Your task to perform on an android device: Go to sound settings Image 0: 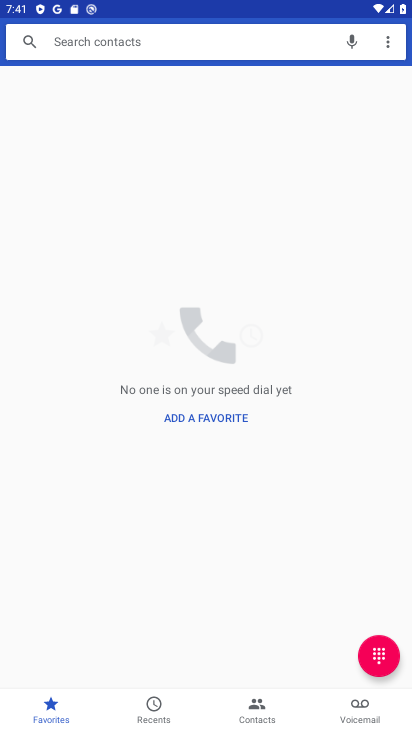
Step 0: press home button
Your task to perform on an android device: Go to sound settings Image 1: 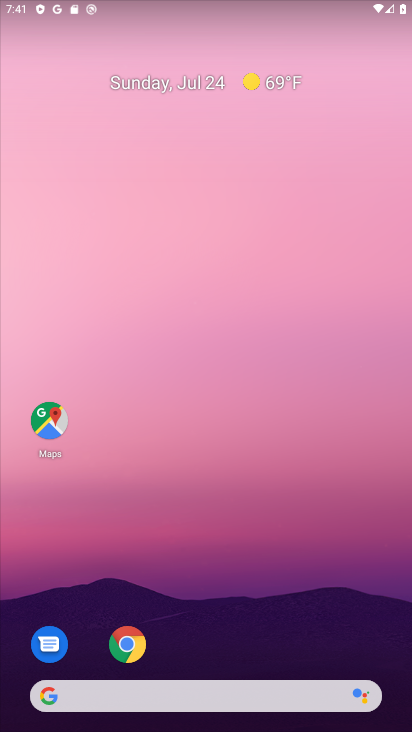
Step 1: drag from (194, 686) to (211, 368)
Your task to perform on an android device: Go to sound settings Image 2: 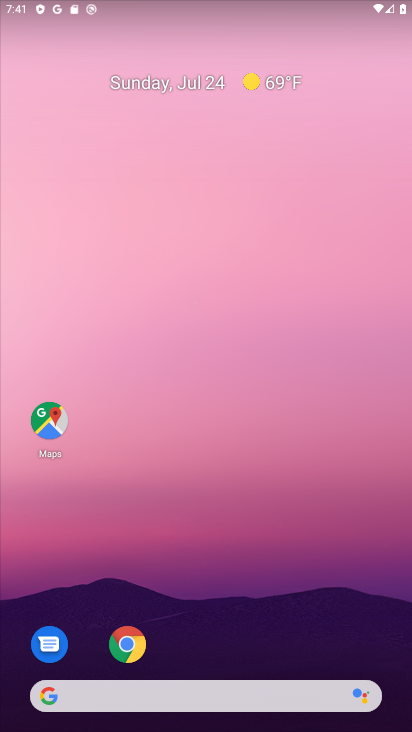
Step 2: drag from (180, 670) to (178, 172)
Your task to perform on an android device: Go to sound settings Image 3: 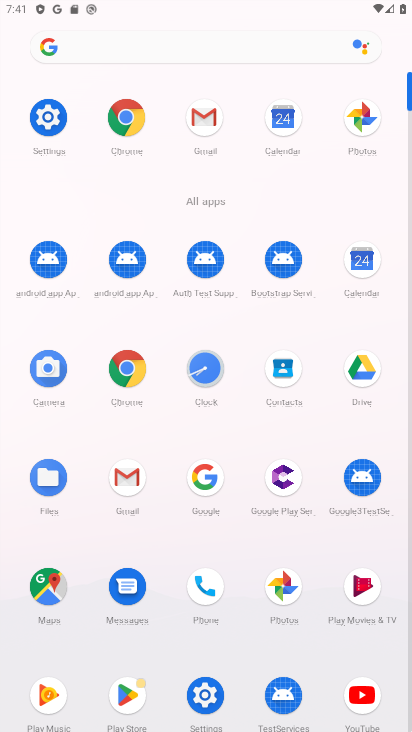
Step 3: click (59, 114)
Your task to perform on an android device: Go to sound settings Image 4: 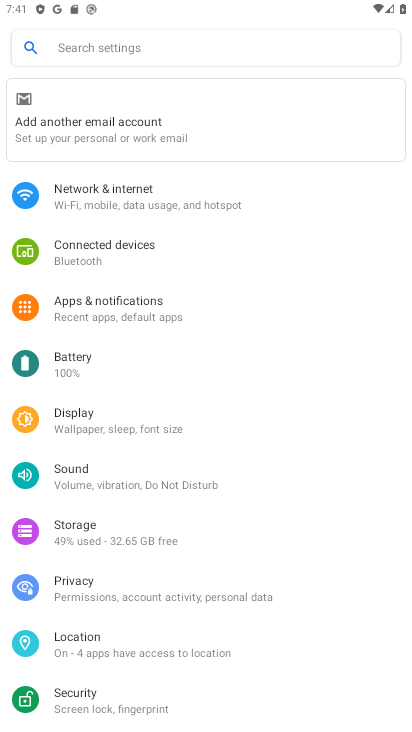
Step 4: click (82, 459)
Your task to perform on an android device: Go to sound settings Image 5: 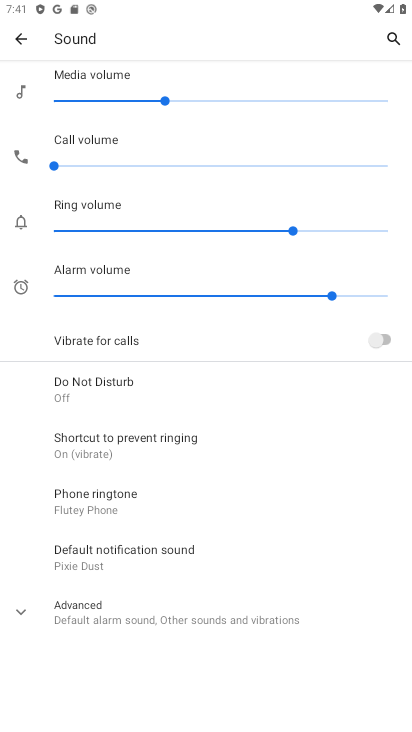
Step 5: click (78, 617)
Your task to perform on an android device: Go to sound settings Image 6: 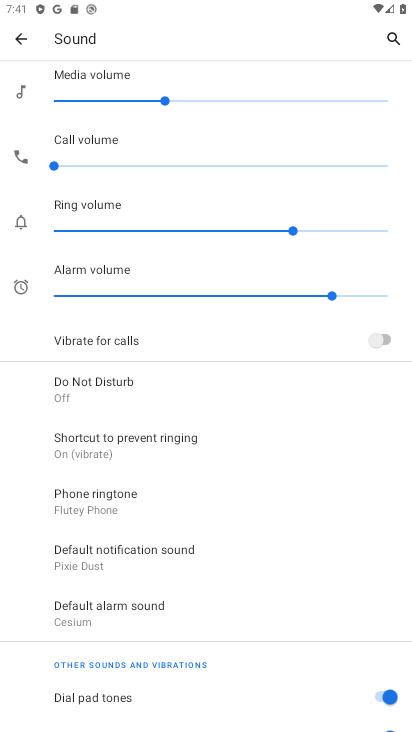
Step 6: task complete